Your task to perform on an android device: Go to Android settings Image 0: 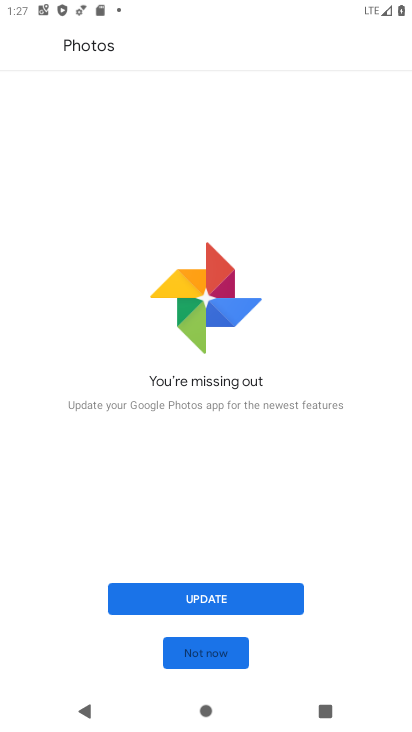
Step 0: press home button
Your task to perform on an android device: Go to Android settings Image 1: 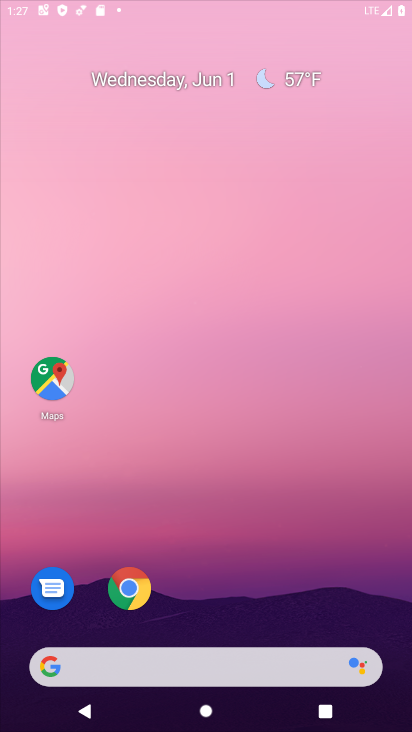
Step 1: drag from (331, 530) to (275, 112)
Your task to perform on an android device: Go to Android settings Image 2: 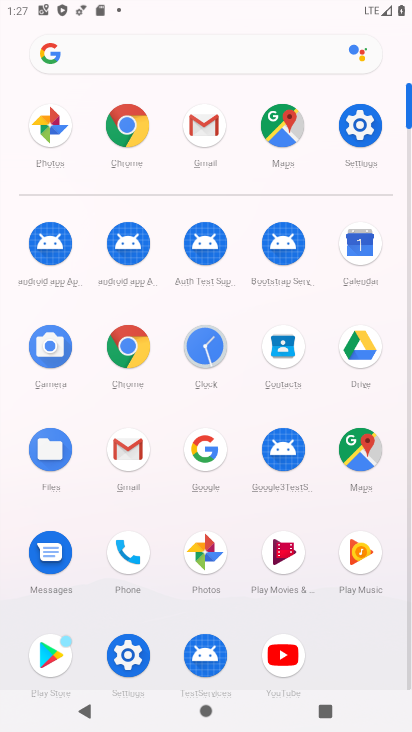
Step 2: click (350, 137)
Your task to perform on an android device: Go to Android settings Image 3: 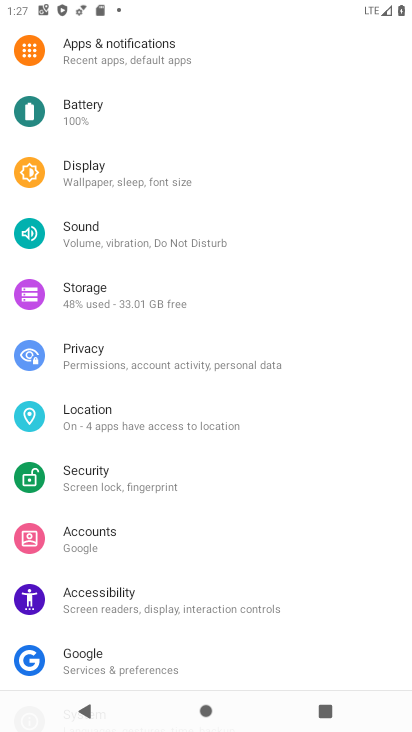
Step 3: drag from (208, 548) to (186, 26)
Your task to perform on an android device: Go to Android settings Image 4: 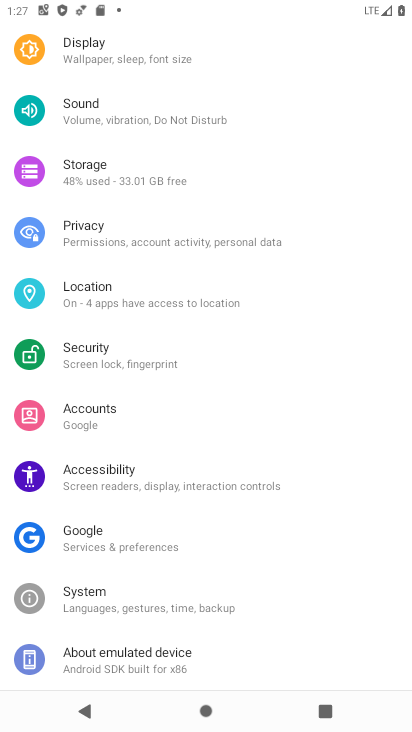
Step 4: click (140, 649)
Your task to perform on an android device: Go to Android settings Image 5: 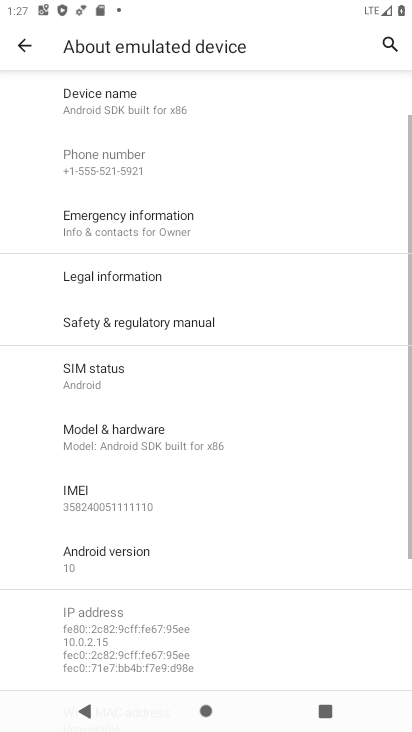
Step 5: drag from (251, 488) to (263, 175)
Your task to perform on an android device: Go to Android settings Image 6: 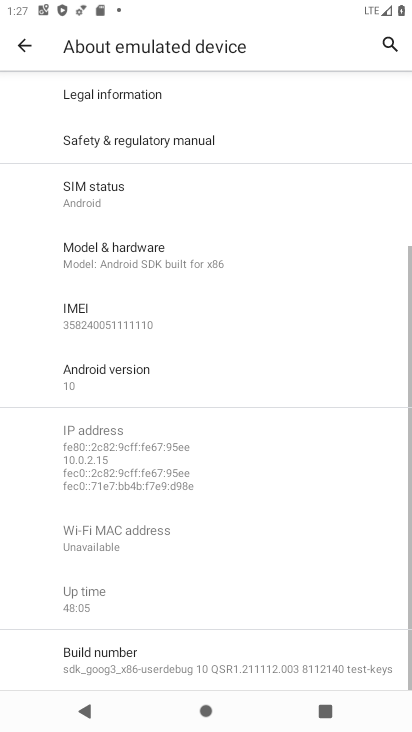
Step 6: click (181, 381)
Your task to perform on an android device: Go to Android settings Image 7: 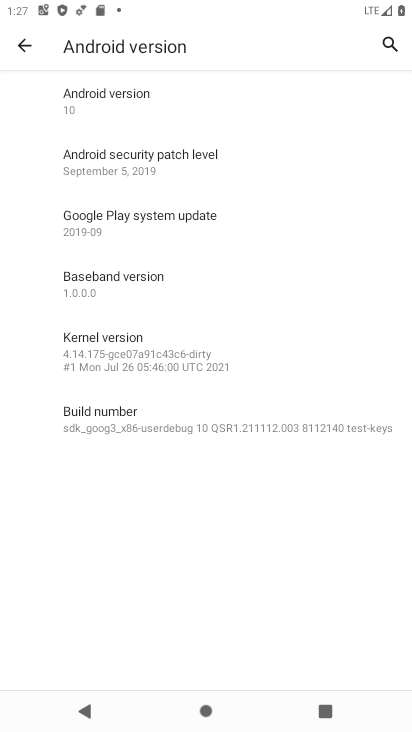
Step 7: task complete